Your task to perform on an android device: change your default location settings in chrome Image 0: 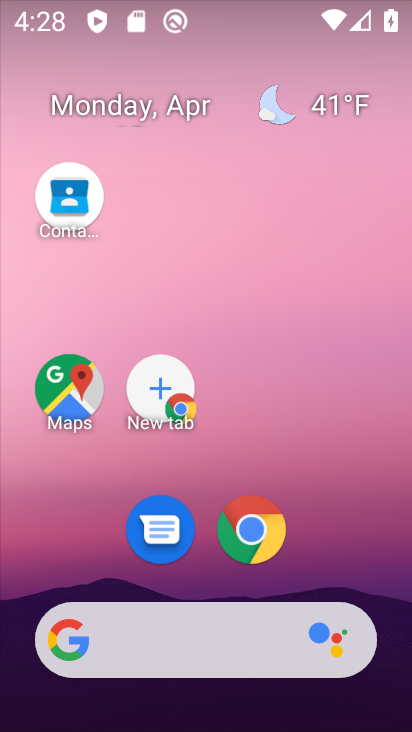
Step 0: click (257, 538)
Your task to perform on an android device: change your default location settings in chrome Image 1: 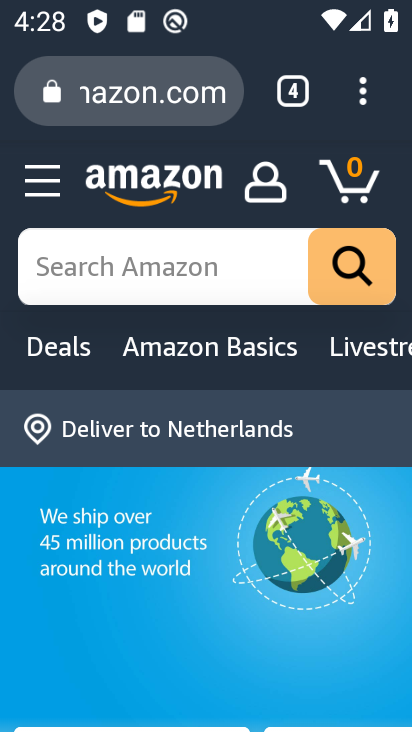
Step 1: click (365, 91)
Your task to perform on an android device: change your default location settings in chrome Image 2: 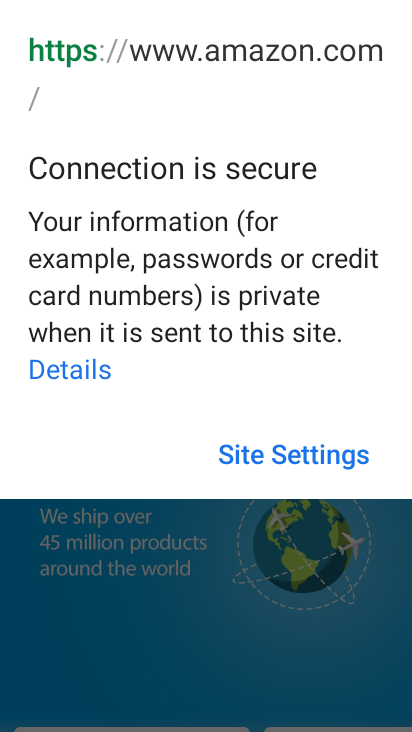
Step 2: click (185, 607)
Your task to perform on an android device: change your default location settings in chrome Image 3: 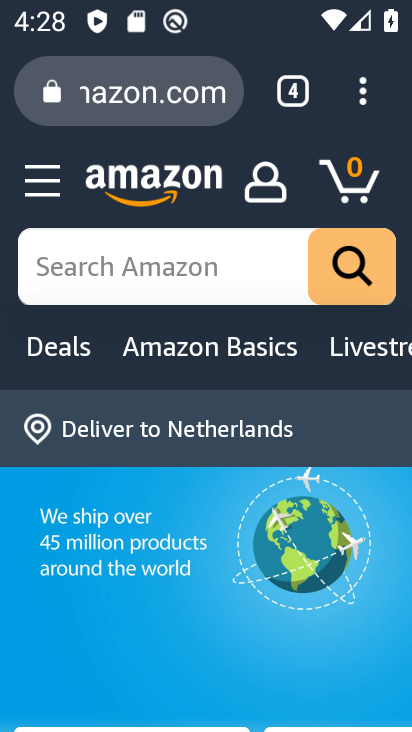
Step 3: drag from (349, 67) to (81, 545)
Your task to perform on an android device: change your default location settings in chrome Image 4: 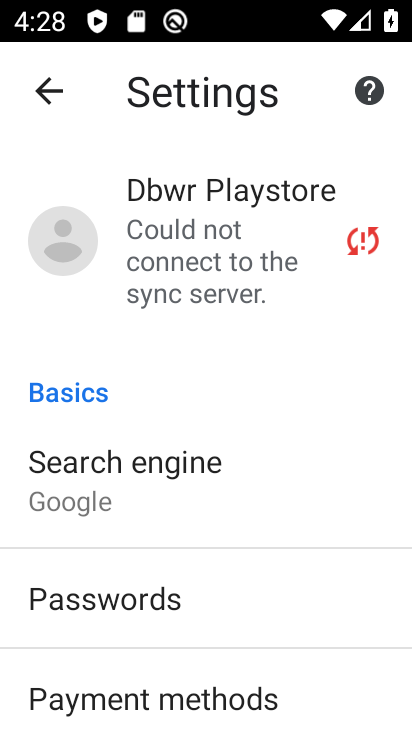
Step 4: drag from (146, 646) to (235, 97)
Your task to perform on an android device: change your default location settings in chrome Image 5: 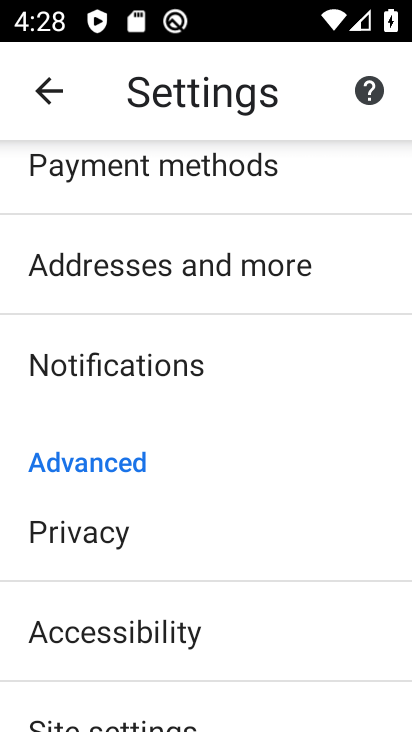
Step 5: drag from (166, 645) to (231, 156)
Your task to perform on an android device: change your default location settings in chrome Image 6: 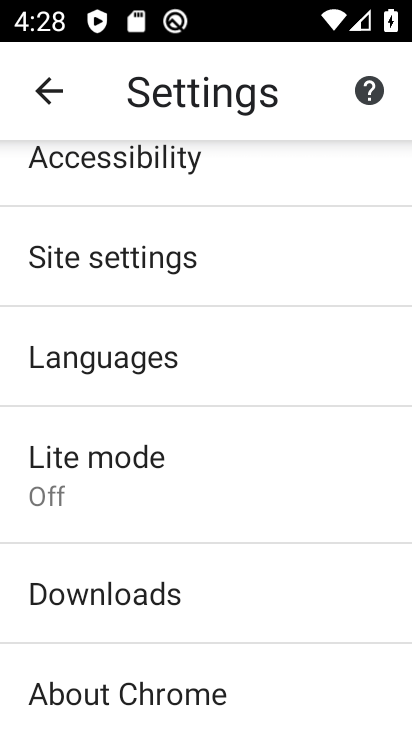
Step 6: click (189, 253)
Your task to perform on an android device: change your default location settings in chrome Image 7: 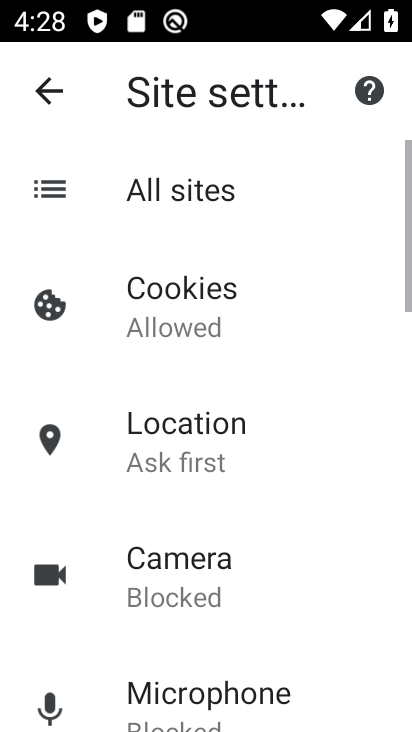
Step 7: click (170, 438)
Your task to perform on an android device: change your default location settings in chrome Image 8: 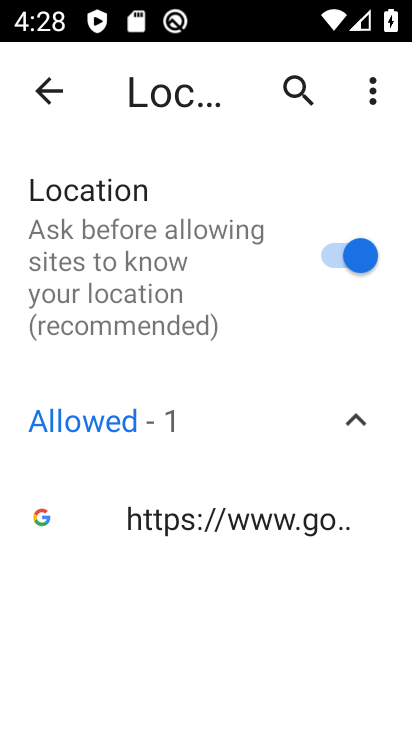
Step 8: click (345, 250)
Your task to perform on an android device: change your default location settings in chrome Image 9: 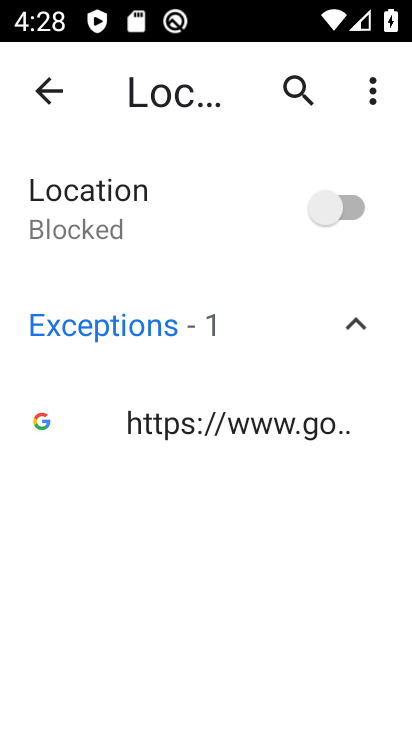
Step 9: task complete